Your task to perform on an android device: show emergency info Image 0: 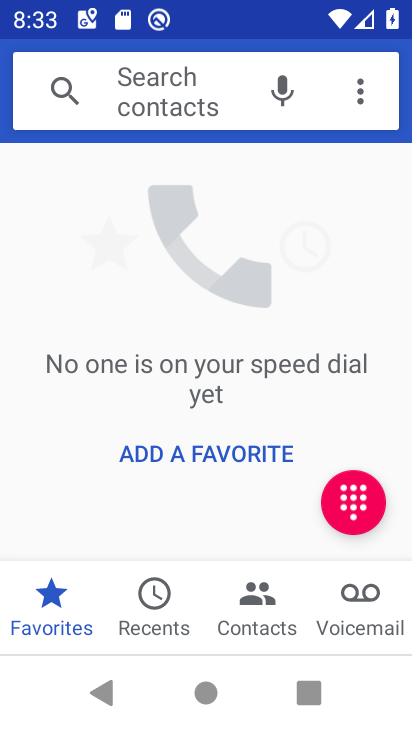
Step 0: press home button
Your task to perform on an android device: show emergency info Image 1: 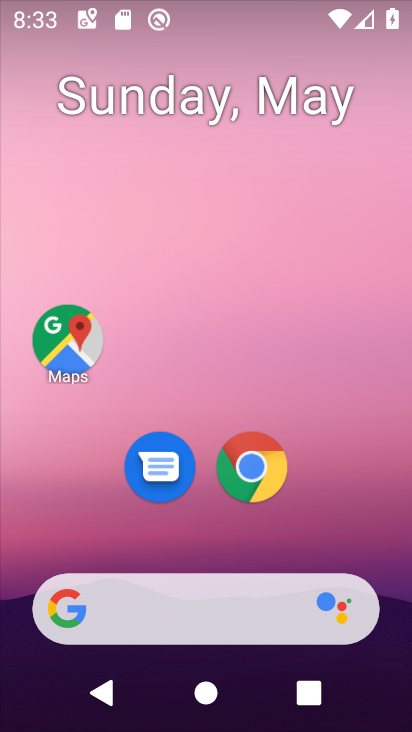
Step 1: drag from (364, 517) to (344, 170)
Your task to perform on an android device: show emergency info Image 2: 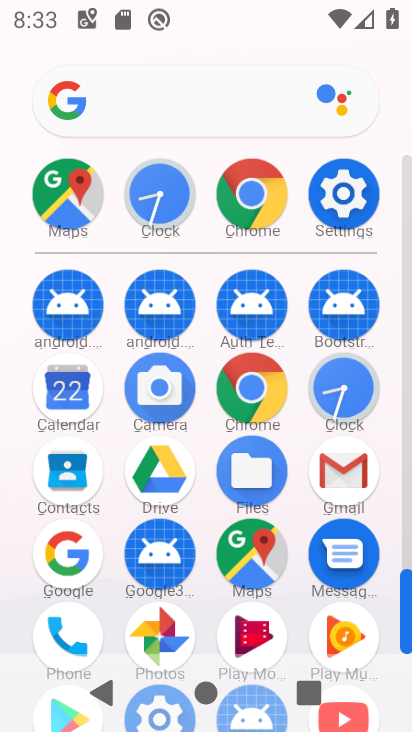
Step 2: click (358, 198)
Your task to perform on an android device: show emergency info Image 3: 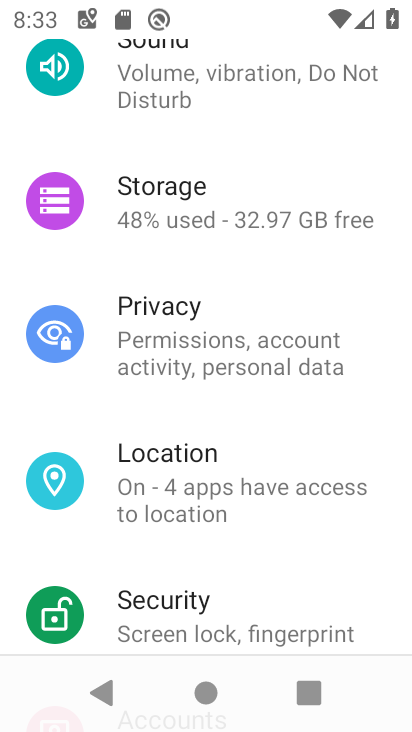
Step 3: drag from (352, 593) to (314, 177)
Your task to perform on an android device: show emergency info Image 4: 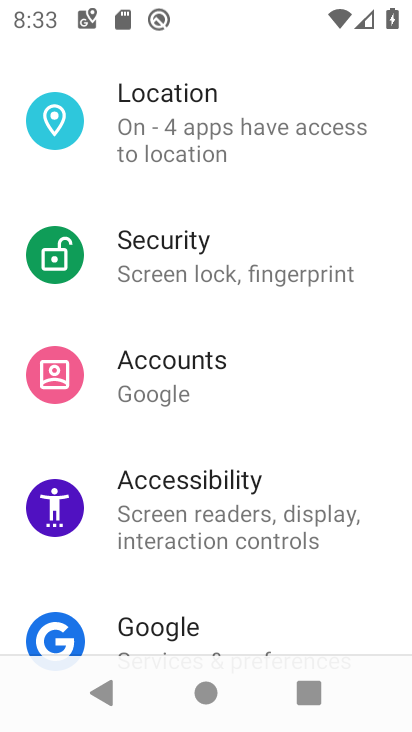
Step 4: drag from (297, 587) to (262, 86)
Your task to perform on an android device: show emergency info Image 5: 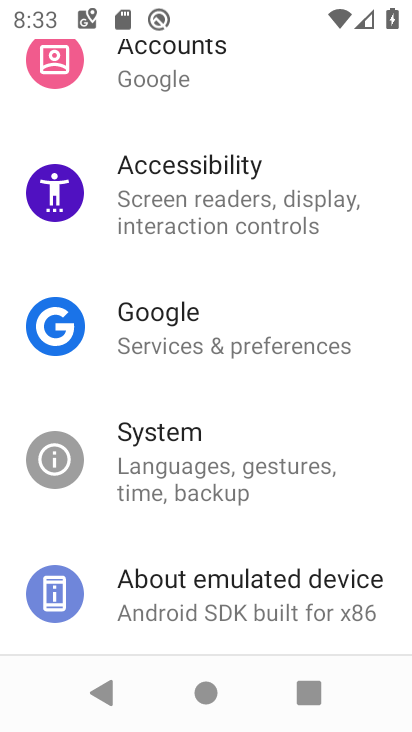
Step 5: drag from (270, 514) to (261, 232)
Your task to perform on an android device: show emergency info Image 6: 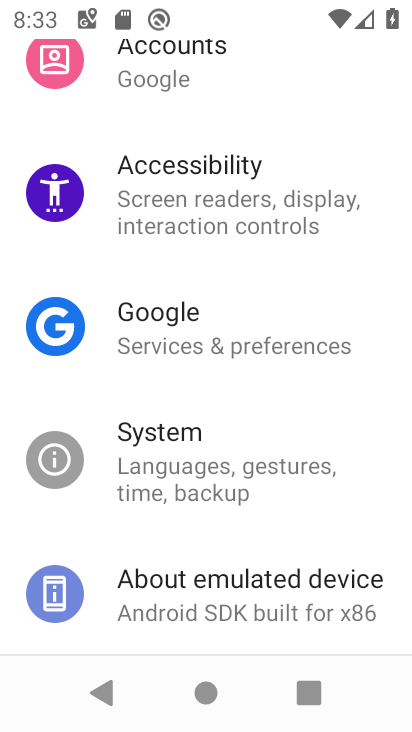
Step 6: click (262, 591)
Your task to perform on an android device: show emergency info Image 7: 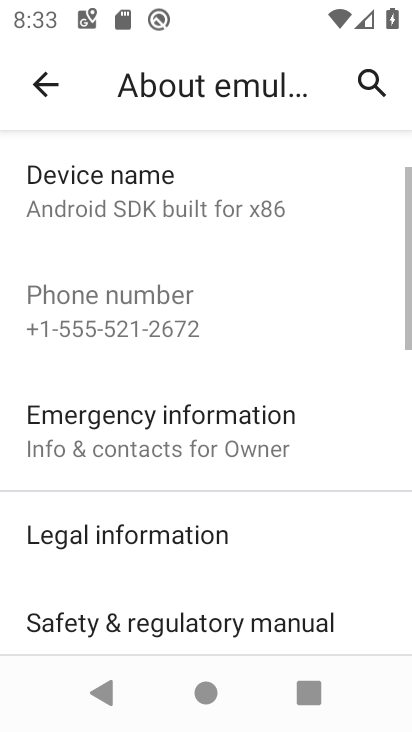
Step 7: click (240, 451)
Your task to perform on an android device: show emergency info Image 8: 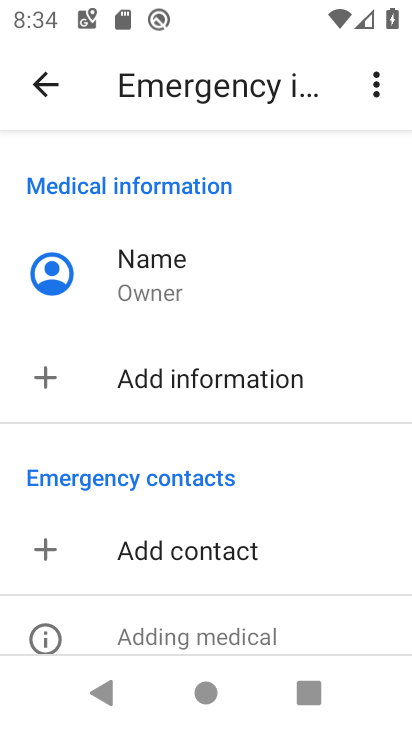
Step 8: task complete